Your task to perform on an android device: Open the calendar and show me this week's events? Image 0: 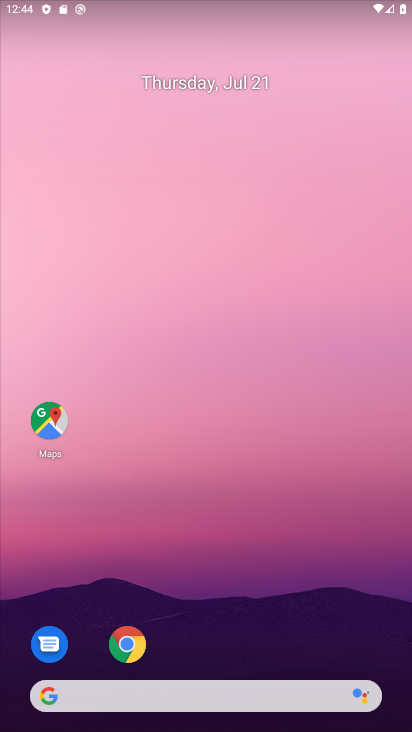
Step 0: drag from (208, 677) to (206, 67)
Your task to perform on an android device: Open the calendar and show me this week's events? Image 1: 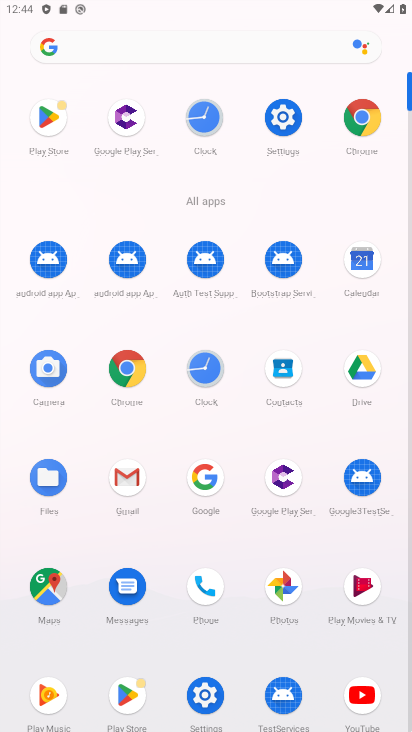
Step 1: click (365, 267)
Your task to perform on an android device: Open the calendar and show me this week's events? Image 2: 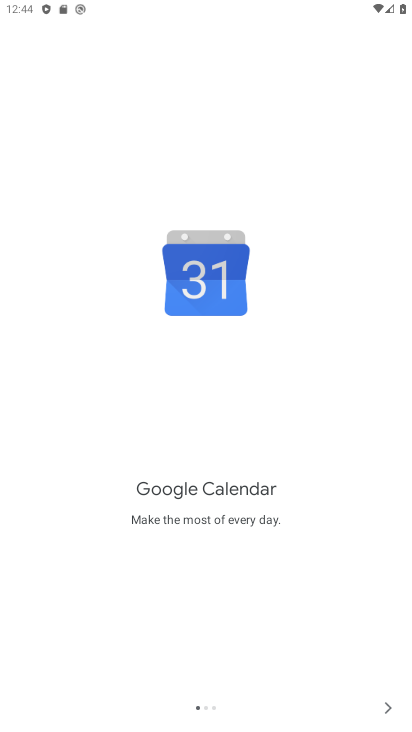
Step 2: click (375, 712)
Your task to perform on an android device: Open the calendar and show me this week's events? Image 3: 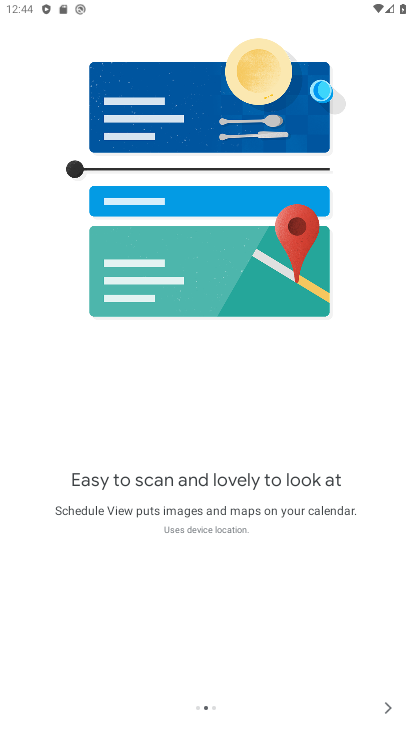
Step 3: click (385, 700)
Your task to perform on an android device: Open the calendar and show me this week's events? Image 4: 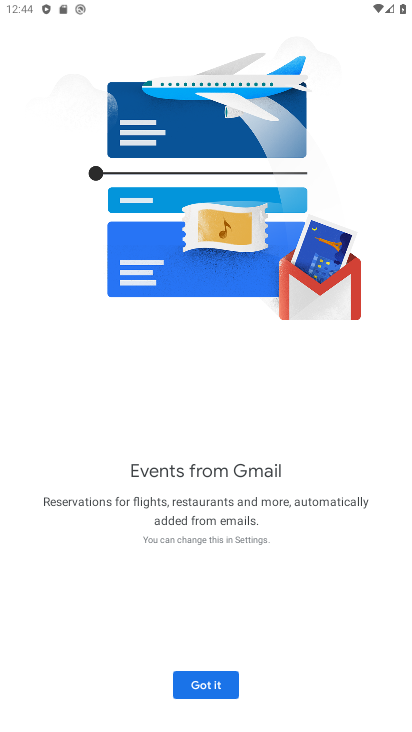
Step 4: click (211, 673)
Your task to perform on an android device: Open the calendar and show me this week's events? Image 5: 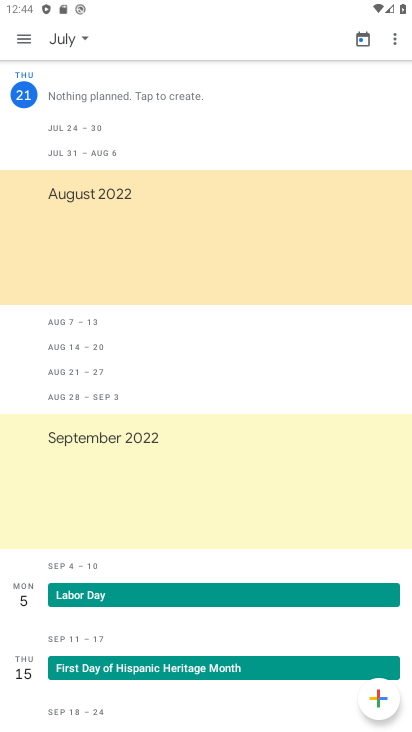
Step 5: click (357, 39)
Your task to perform on an android device: Open the calendar and show me this week's events? Image 6: 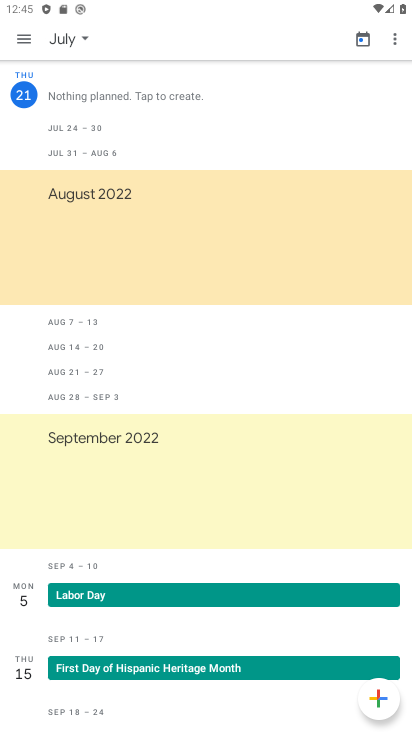
Step 6: click (21, 44)
Your task to perform on an android device: Open the calendar and show me this week's events? Image 7: 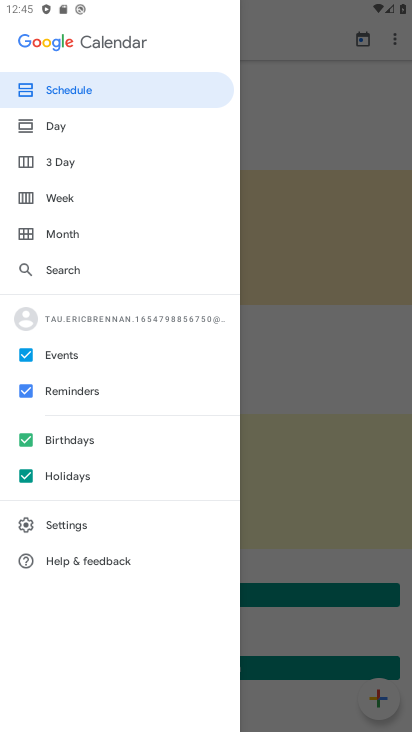
Step 7: click (60, 199)
Your task to perform on an android device: Open the calendar and show me this week's events? Image 8: 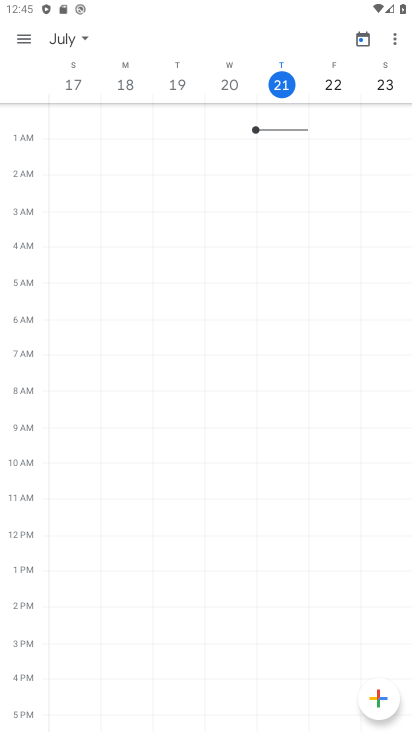
Step 8: task complete